Your task to perform on an android device: check the backup settings in the google photos Image 0: 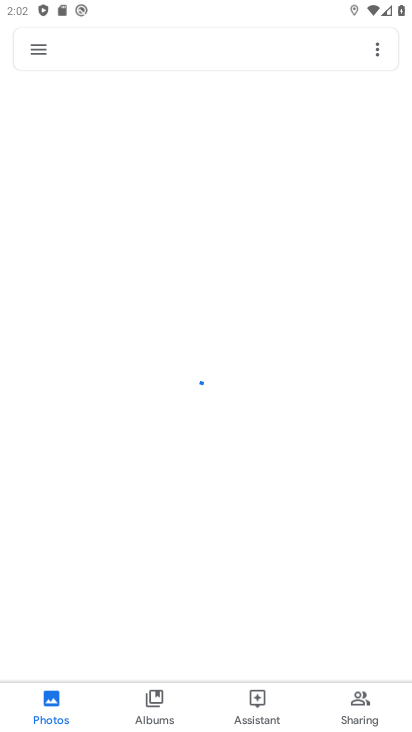
Step 0: press home button
Your task to perform on an android device: check the backup settings in the google photos Image 1: 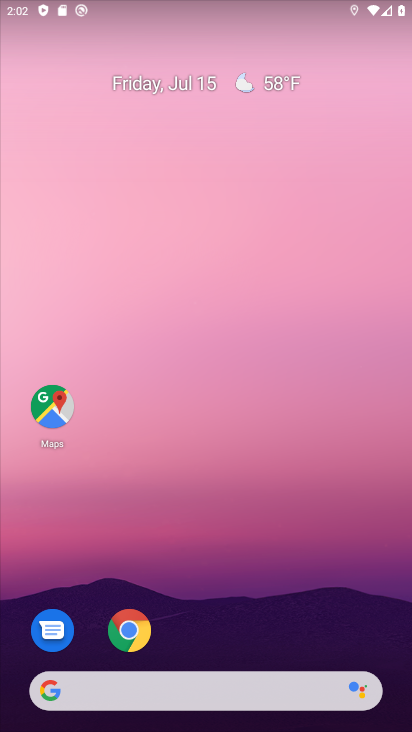
Step 1: drag from (354, 611) to (370, 97)
Your task to perform on an android device: check the backup settings in the google photos Image 2: 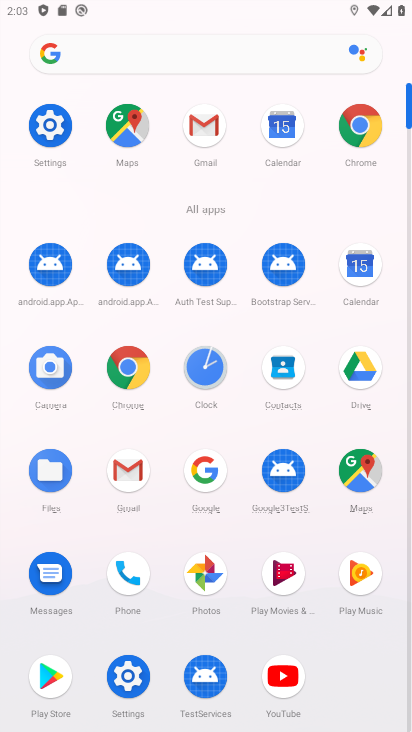
Step 2: click (209, 567)
Your task to perform on an android device: check the backup settings in the google photos Image 3: 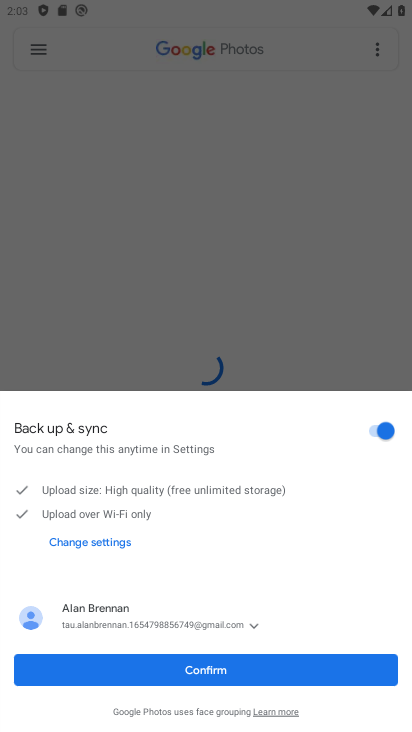
Step 3: click (159, 668)
Your task to perform on an android device: check the backup settings in the google photos Image 4: 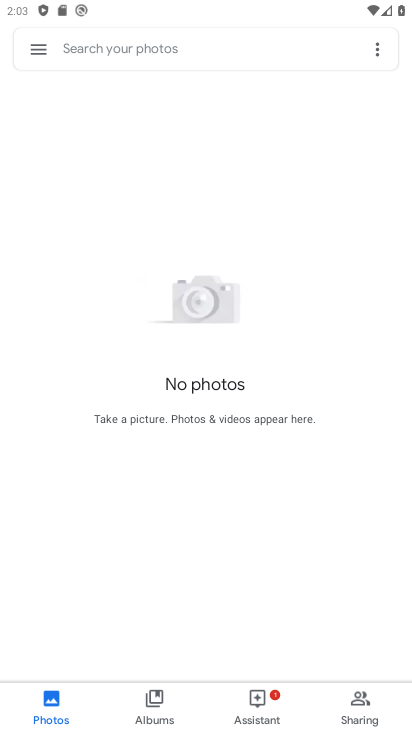
Step 4: click (35, 50)
Your task to perform on an android device: check the backup settings in the google photos Image 5: 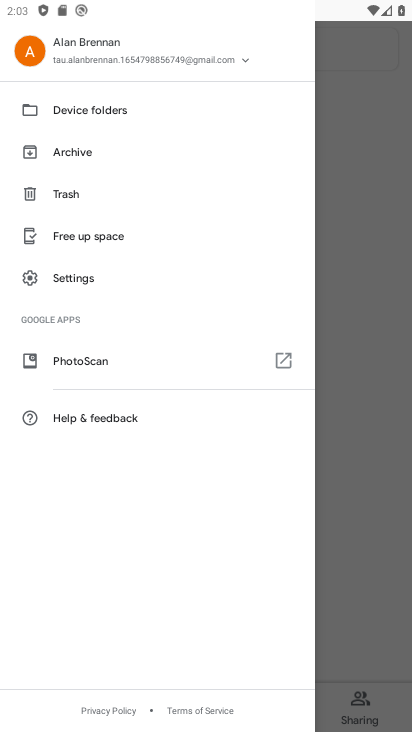
Step 5: click (109, 282)
Your task to perform on an android device: check the backup settings in the google photos Image 6: 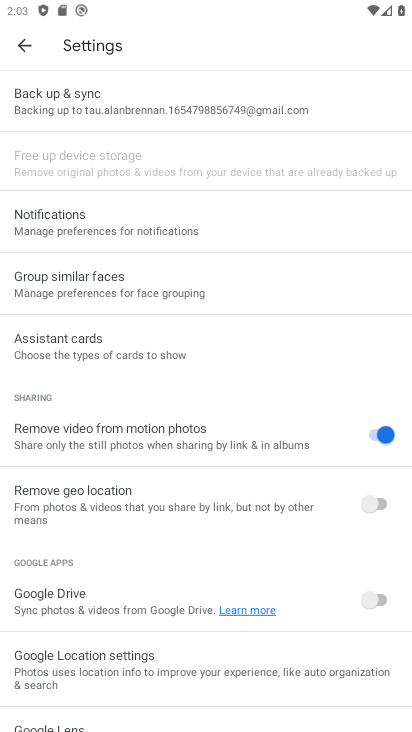
Step 6: click (189, 99)
Your task to perform on an android device: check the backup settings in the google photos Image 7: 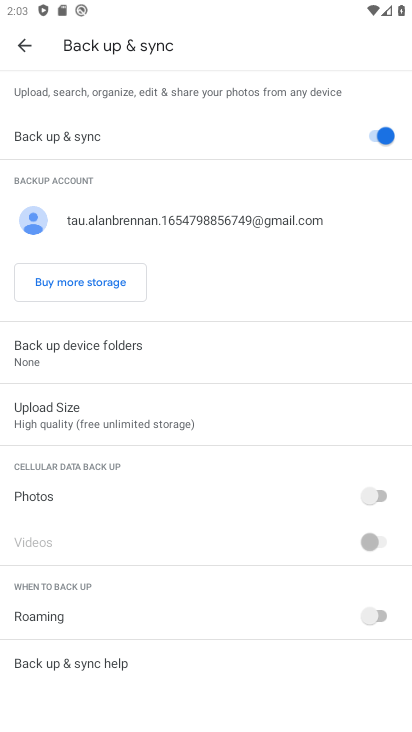
Step 7: task complete